Your task to perform on an android device: Open calendar and show me the first week of next month Image 0: 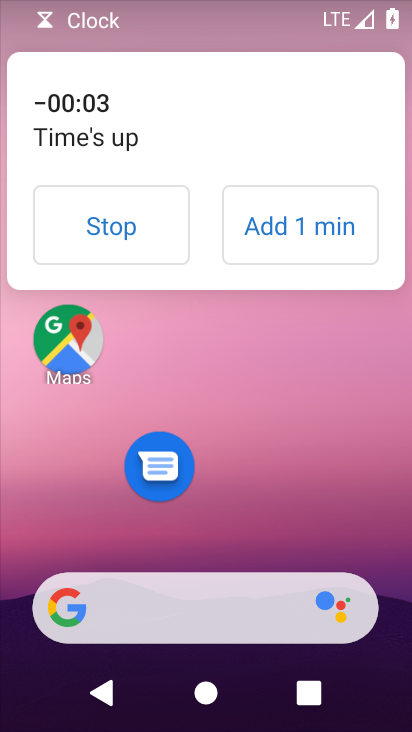
Step 0: click (82, 239)
Your task to perform on an android device: Open calendar and show me the first week of next month Image 1: 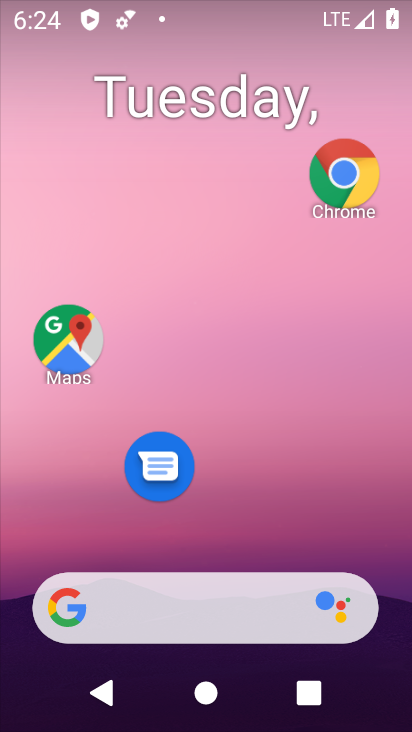
Step 1: drag from (400, 663) to (313, 80)
Your task to perform on an android device: Open calendar and show me the first week of next month Image 2: 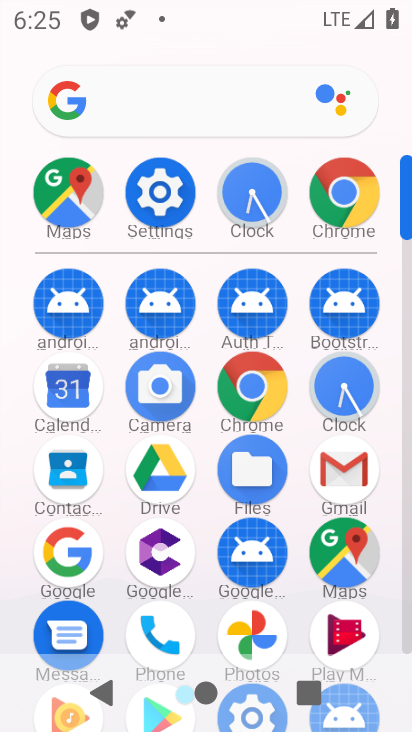
Step 2: click (74, 372)
Your task to perform on an android device: Open calendar and show me the first week of next month Image 3: 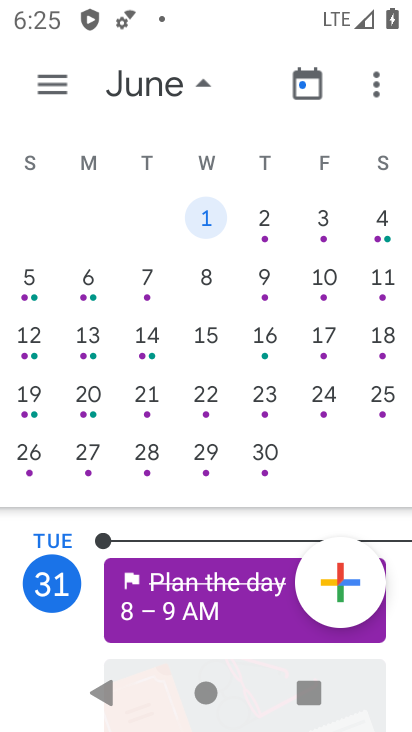
Step 3: task complete